Your task to perform on an android device: Show me popular games on the Play Store Image 0: 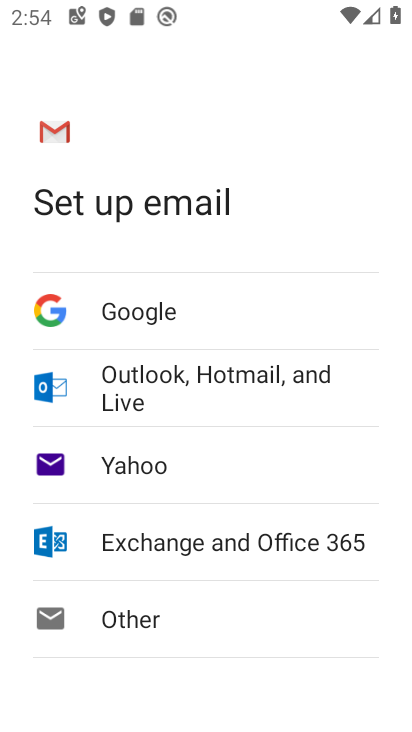
Step 0: press home button
Your task to perform on an android device: Show me popular games on the Play Store Image 1: 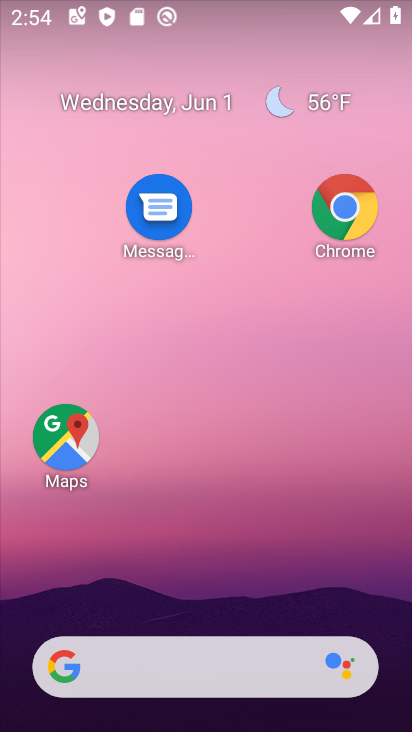
Step 1: drag from (213, 602) to (298, 135)
Your task to perform on an android device: Show me popular games on the Play Store Image 2: 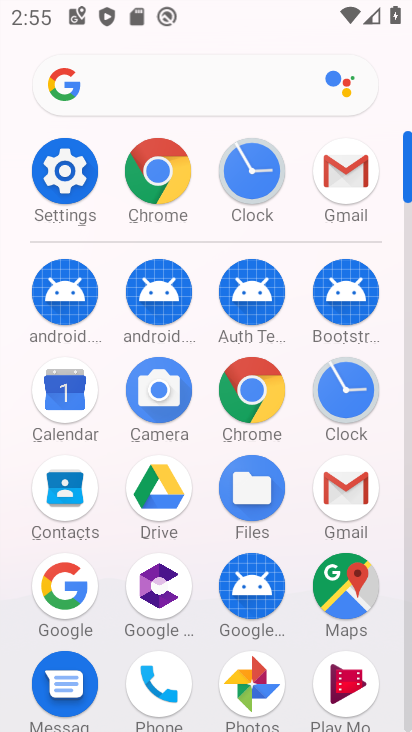
Step 2: drag from (195, 670) to (169, 82)
Your task to perform on an android device: Show me popular games on the Play Store Image 3: 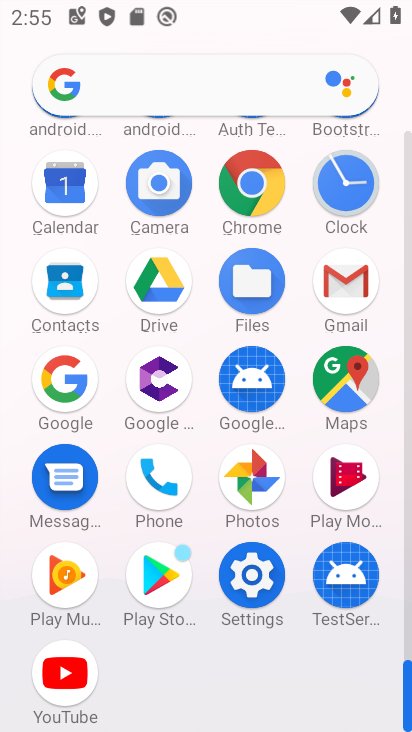
Step 3: click (170, 563)
Your task to perform on an android device: Show me popular games on the Play Store Image 4: 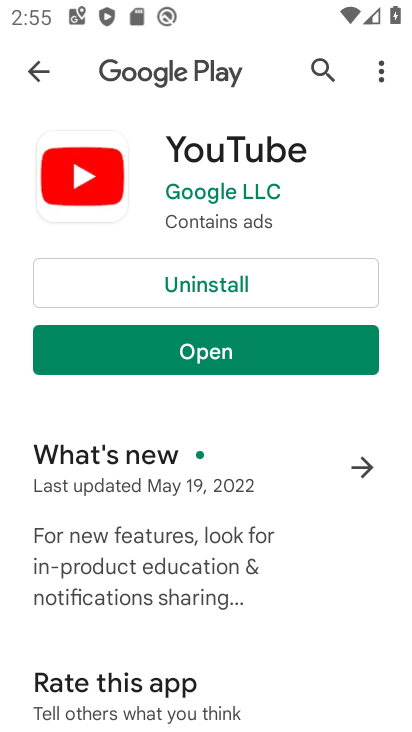
Step 4: press back button
Your task to perform on an android device: Show me popular games on the Play Store Image 5: 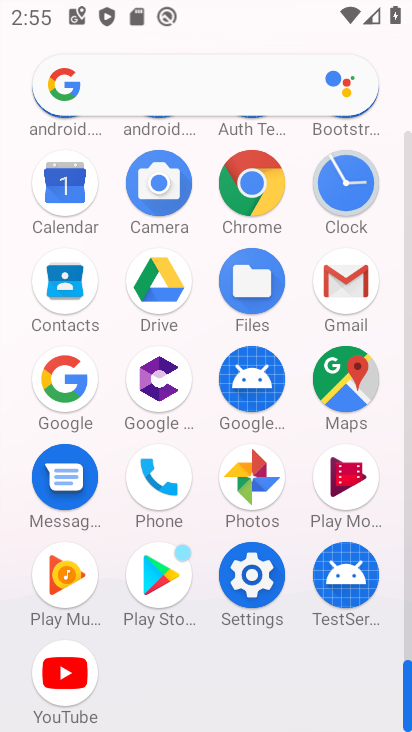
Step 5: click (134, 579)
Your task to perform on an android device: Show me popular games on the Play Store Image 6: 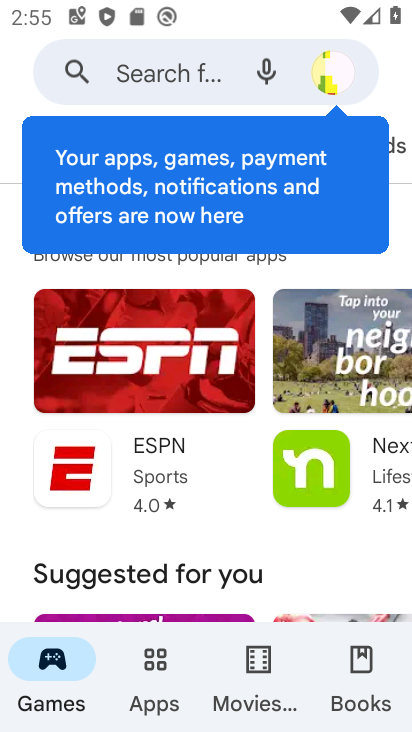
Step 6: drag from (296, 528) to (334, 3)
Your task to perform on an android device: Show me popular games on the Play Store Image 7: 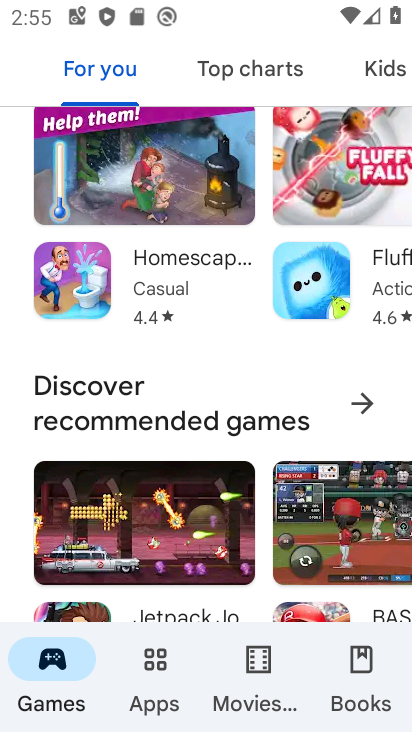
Step 7: drag from (195, 414) to (300, 5)
Your task to perform on an android device: Show me popular games on the Play Store Image 8: 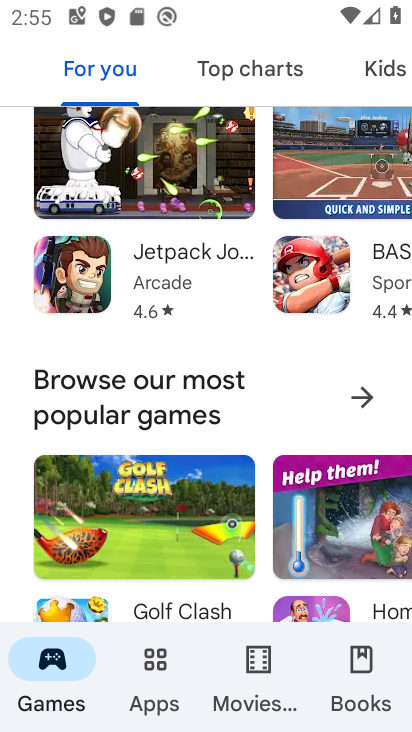
Step 8: click (356, 396)
Your task to perform on an android device: Show me popular games on the Play Store Image 9: 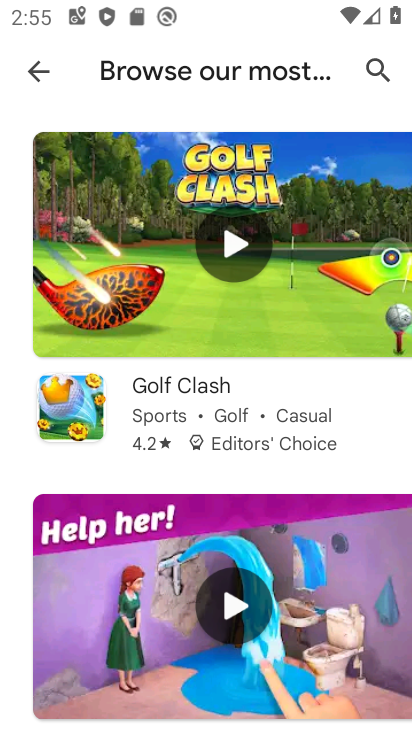
Step 9: task complete